Your task to perform on an android device: Clear the cart on bestbuy. Image 0: 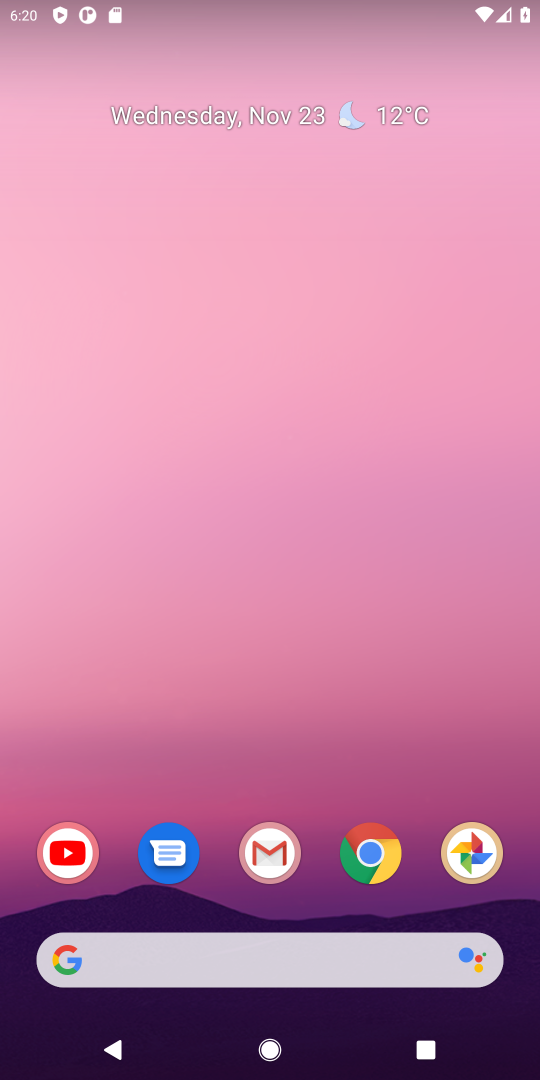
Step 0: click (381, 852)
Your task to perform on an android device: Clear the cart on bestbuy. Image 1: 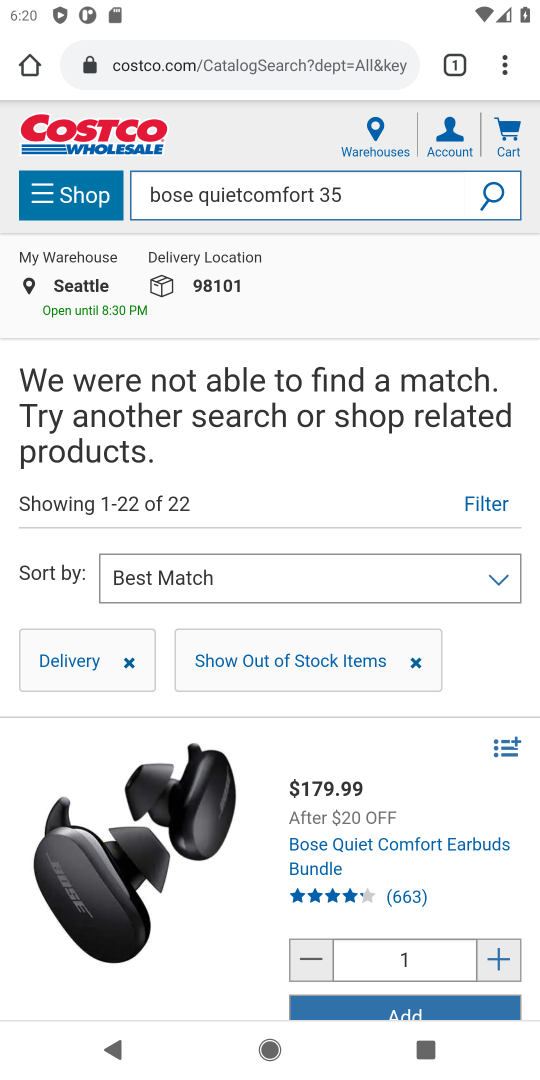
Step 1: click (214, 59)
Your task to perform on an android device: Clear the cart on bestbuy. Image 2: 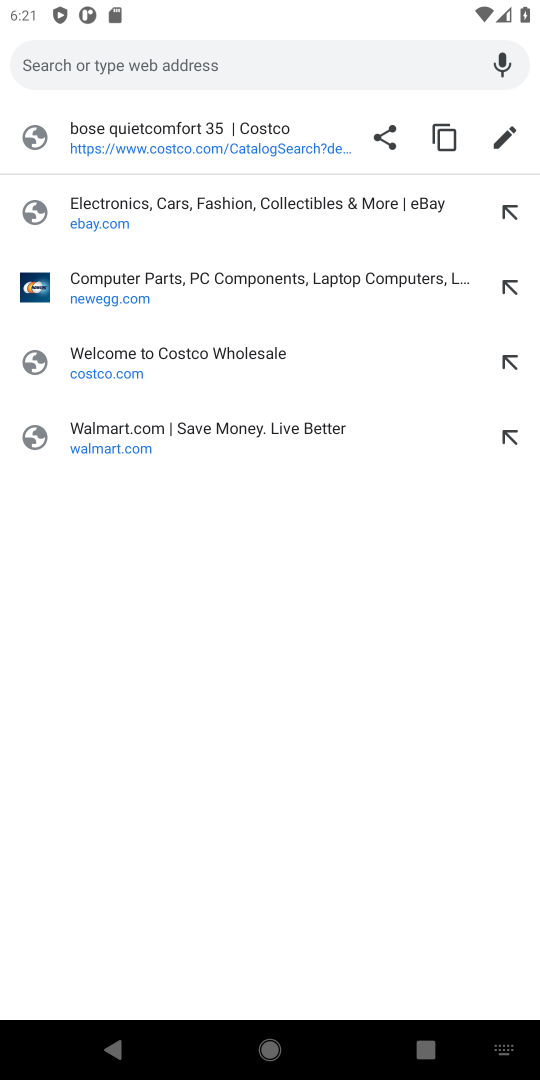
Step 2: type "bestbuy.com"
Your task to perform on an android device: Clear the cart on bestbuy. Image 3: 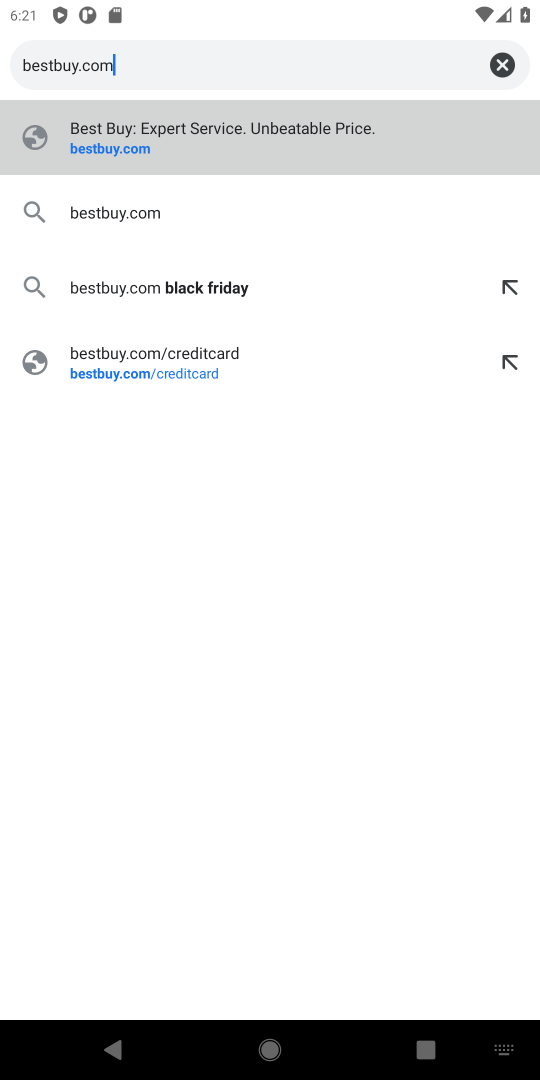
Step 3: click (132, 148)
Your task to perform on an android device: Clear the cart on bestbuy. Image 4: 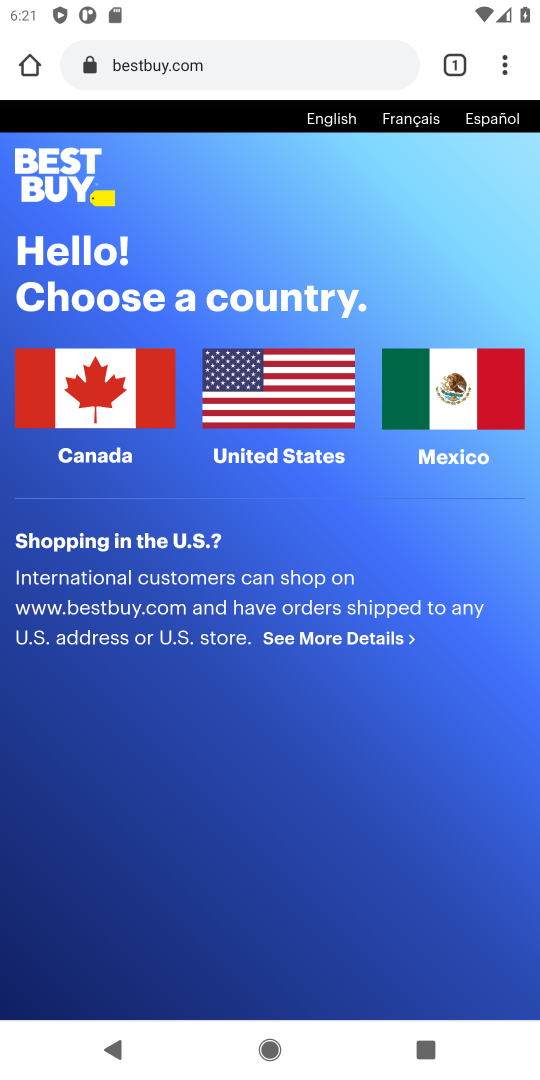
Step 4: click (257, 396)
Your task to perform on an android device: Clear the cart on bestbuy. Image 5: 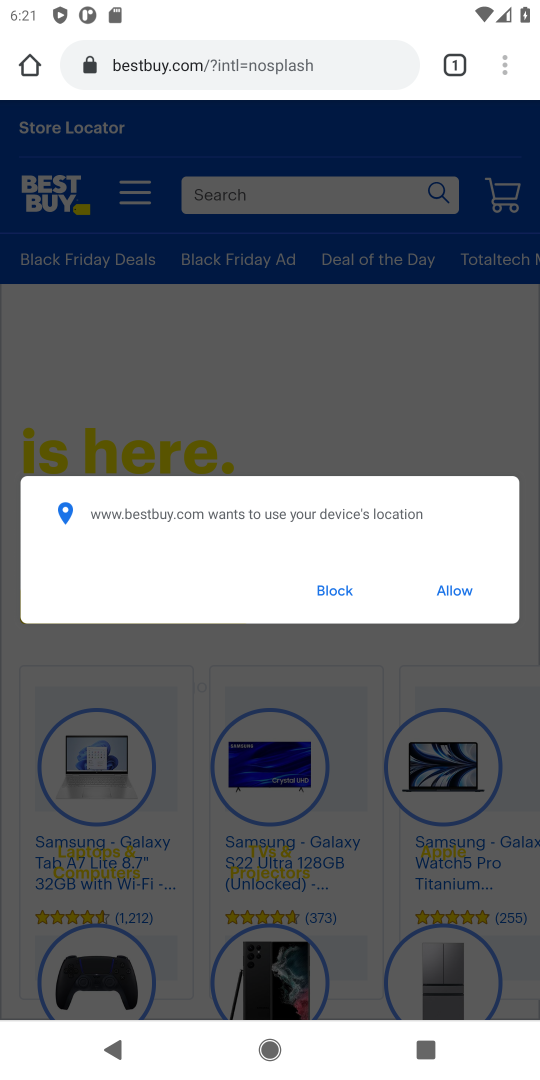
Step 5: click (500, 197)
Your task to perform on an android device: Clear the cart on bestbuy. Image 6: 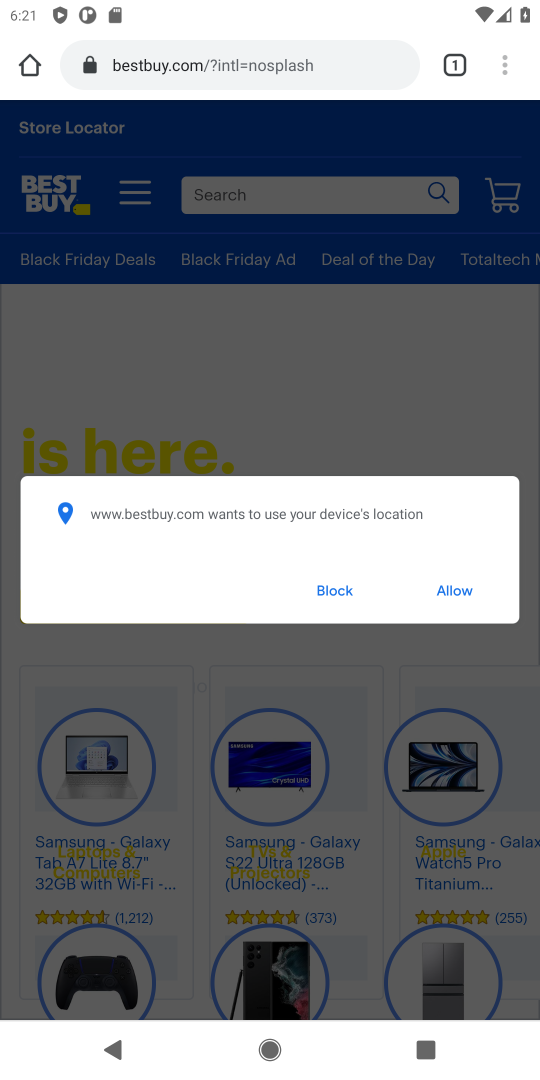
Step 6: click (338, 602)
Your task to perform on an android device: Clear the cart on bestbuy. Image 7: 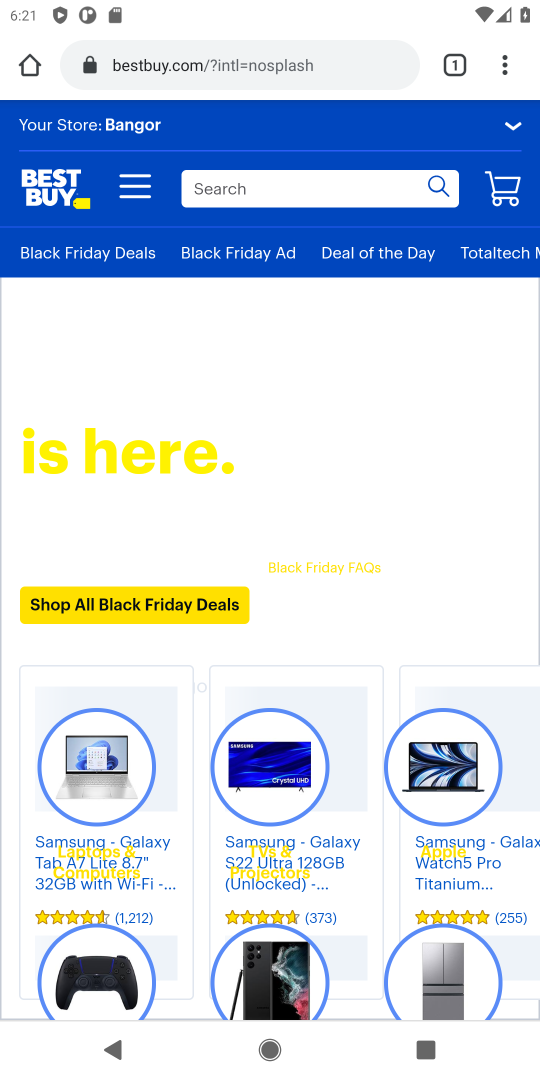
Step 7: click (510, 196)
Your task to perform on an android device: Clear the cart on bestbuy. Image 8: 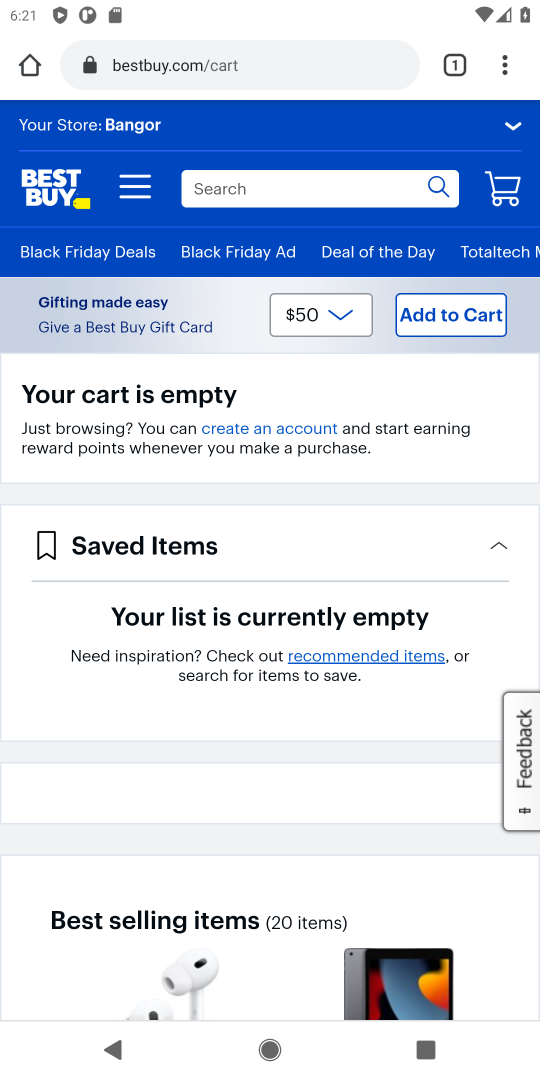
Step 8: task complete